Your task to perform on an android device: turn on airplane mode Image 0: 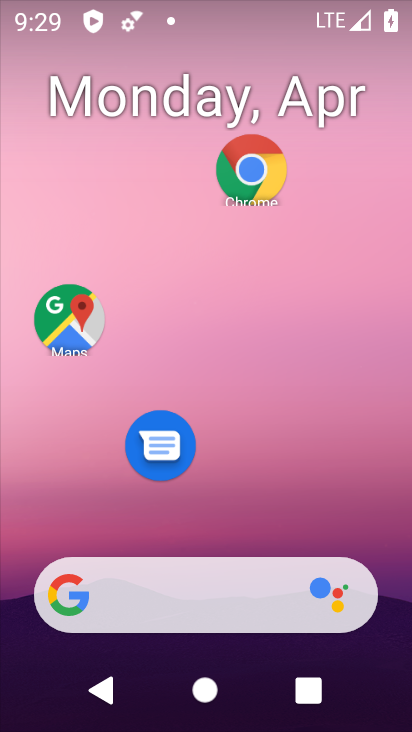
Step 0: drag from (225, 468) to (231, 125)
Your task to perform on an android device: turn on airplane mode Image 1: 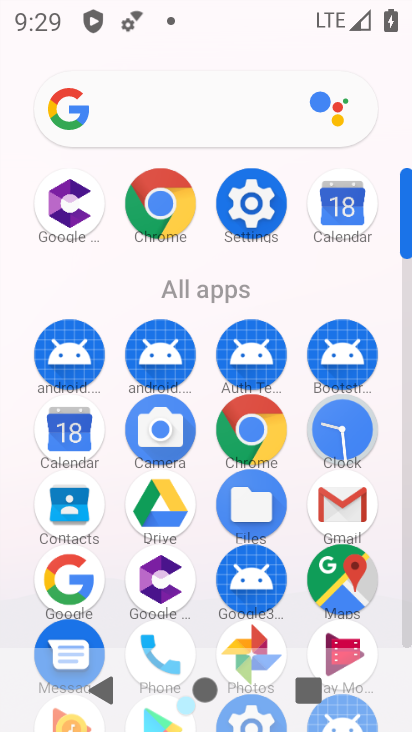
Step 1: click (245, 220)
Your task to perform on an android device: turn on airplane mode Image 2: 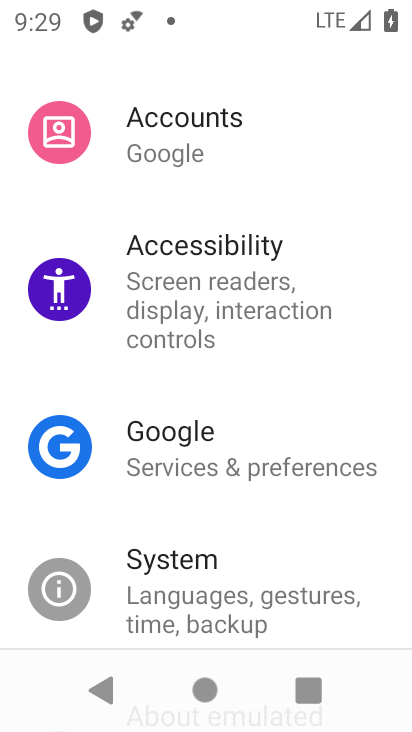
Step 2: drag from (267, 243) to (280, 544)
Your task to perform on an android device: turn on airplane mode Image 3: 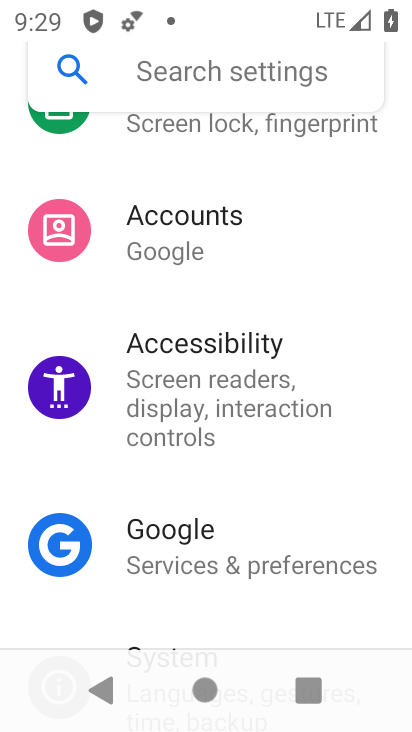
Step 3: drag from (251, 183) to (284, 558)
Your task to perform on an android device: turn on airplane mode Image 4: 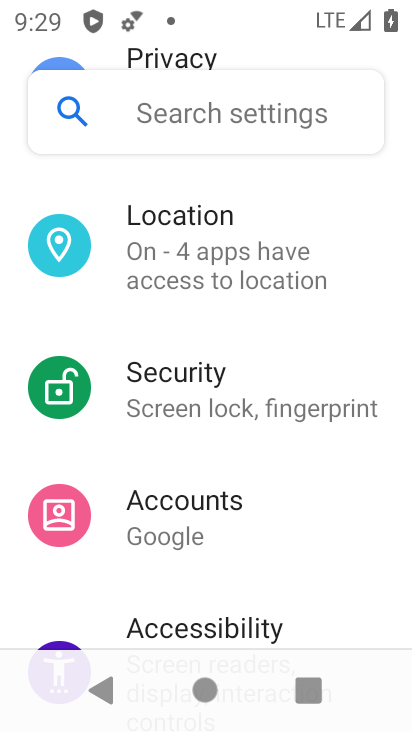
Step 4: drag from (238, 346) to (238, 582)
Your task to perform on an android device: turn on airplane mode Image 5: 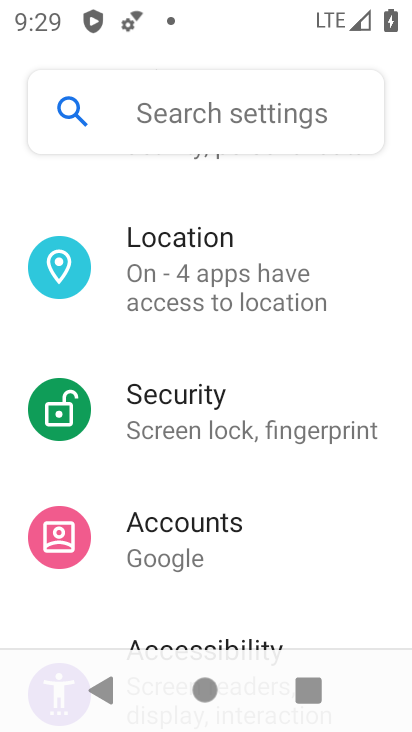
Step 5: drag from (258, 270) to (266, 528)
Your task to perform on an android device: turn on airplane mode Image 6: 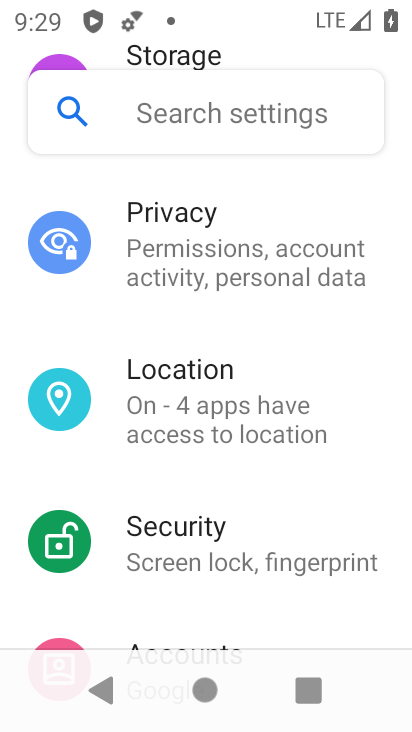
Step 6: drag from (251, 202) to (288, 524)
Your task to perform on an android device: turn on airplane mode Image 7: 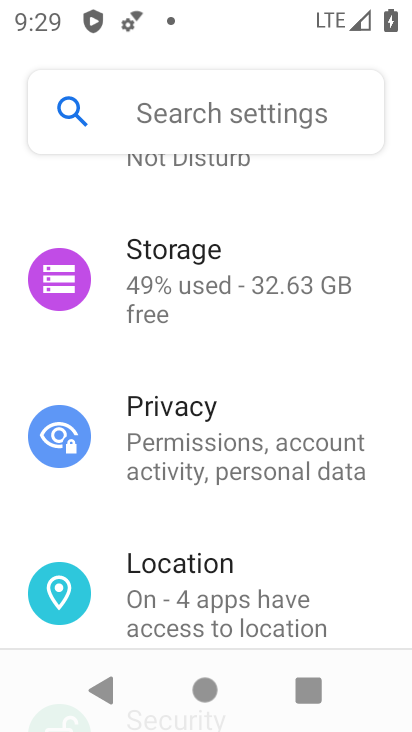
Step 7: drag from (248, 233) to (251, 536)
Your task to perform on an android device: turn on airplane mode Image 8: 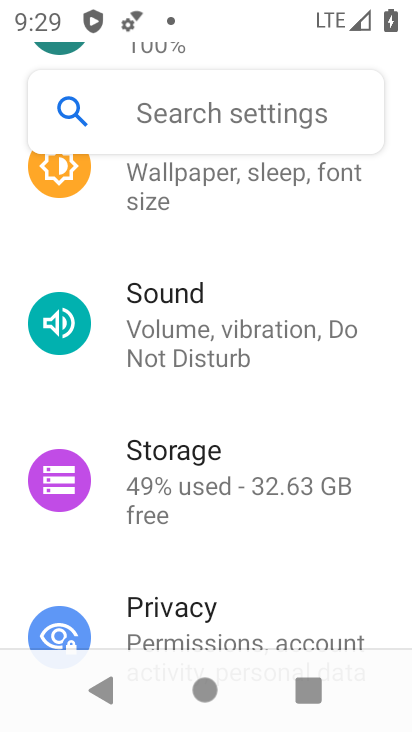
Step 8: drag from (253, 272) to (268, 586)
Your task to perform on an android device: turn on airplane mode Image 9: 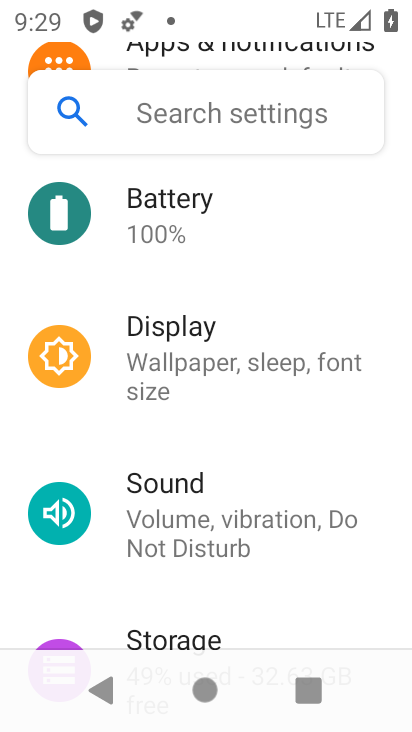
Step 9: drag from (266, 286) to (294, 591)
Your task to perform on an android device: turn on airplane mode Image 10: 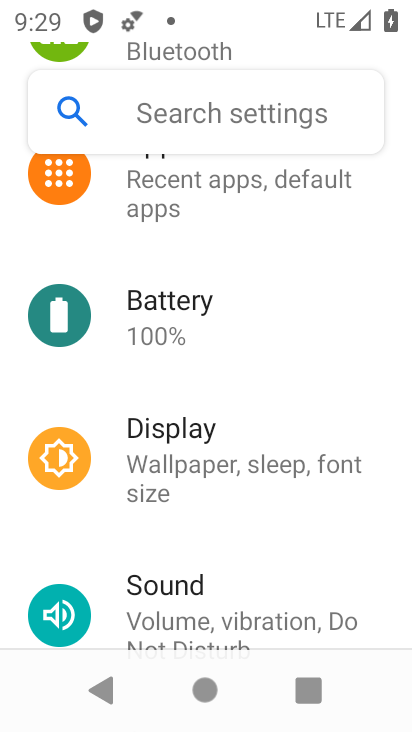
Step 10: drag from (231, 227) to (237, 622)
Your task to perform on an android device: turn on airplane mode Image 11: 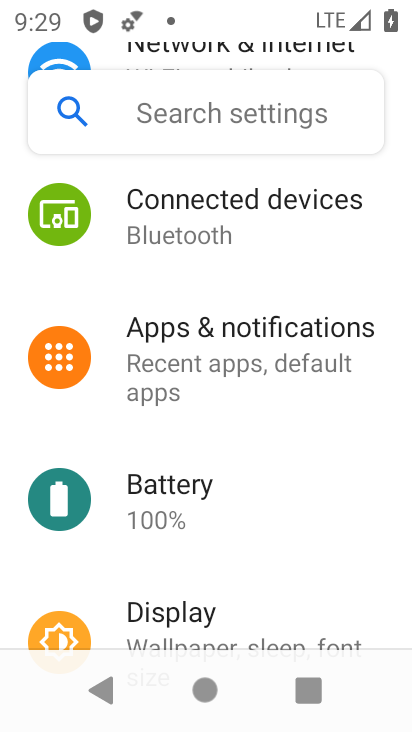
Step 11: drag from (261, 284) to (290, 552)
Your task to perform on an android device: turn on airplane mode Image 12: 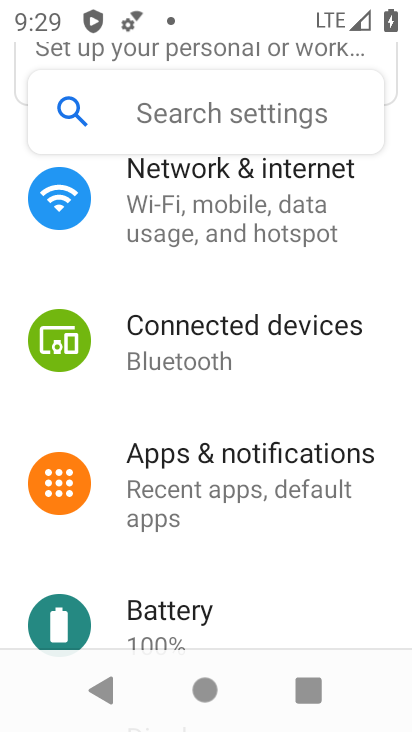
Step 12: drag from (245, 264) to (281, 569)
Your task to perform on an android device: turn on airplane mode Image 13: 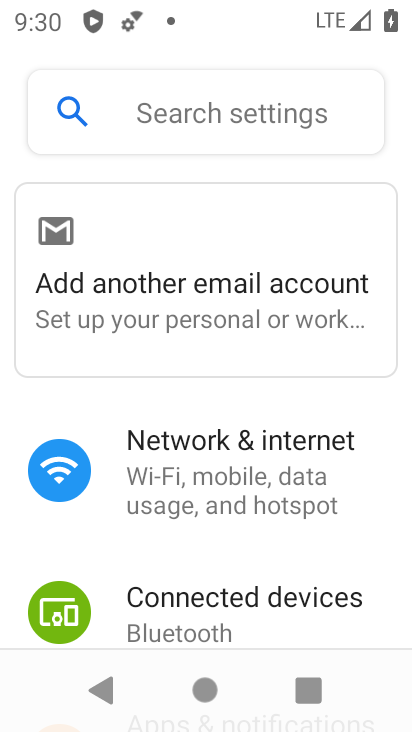
Step 13: click (228, 474)
Your task to perform on an android device: turn on airplane mode Image 14: 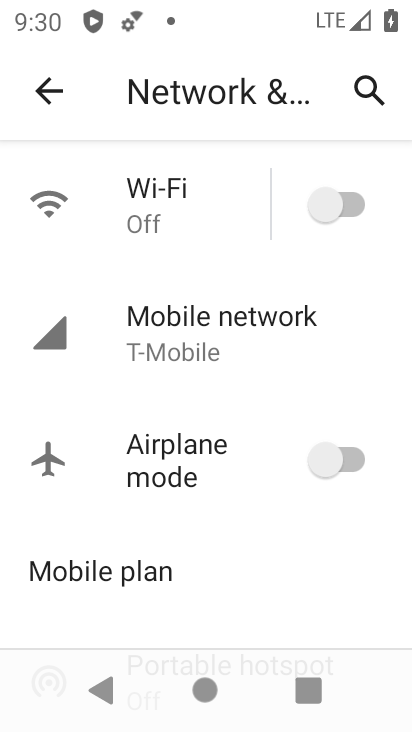
Step 14: click (349, 464)
Your task to perform on an android device: turn on airplane mode Image 15: 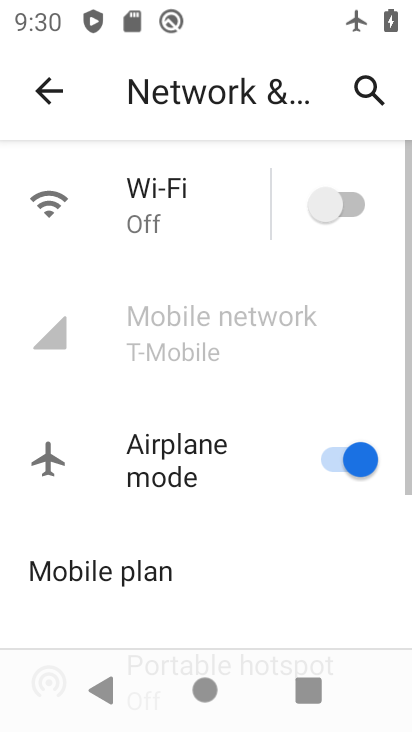
Step 15: task complete